Your task to perform on an android device: When is my next appointment? Image 0: 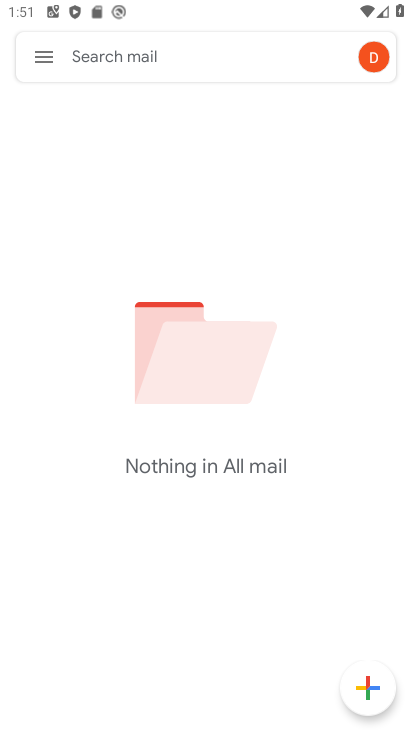
Step 0: press home button
Your task to perform on an android device: When is my next appointment? Image 1: 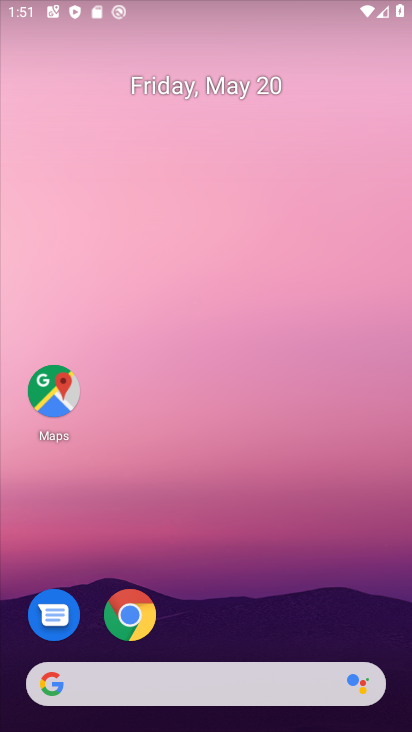
Step 1: drag from (211, 414) to (257, 139)
Your task to perform on an android device: When is my next appointment? Image 2: 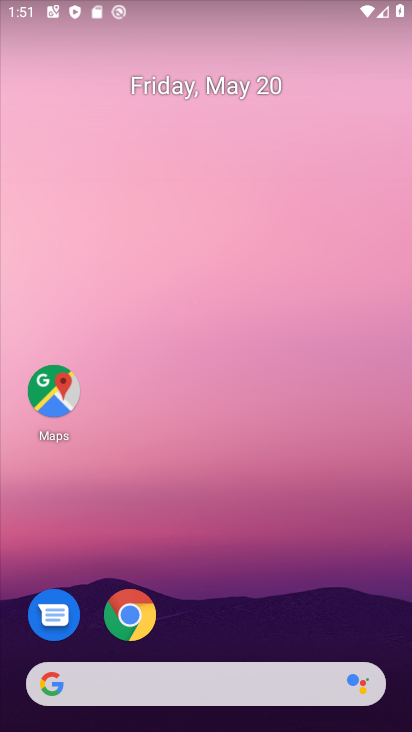
Step 2: drag from (266, 618) to (280, 211)
Your task to perform on an android device: When is my next appointment? Image 3: 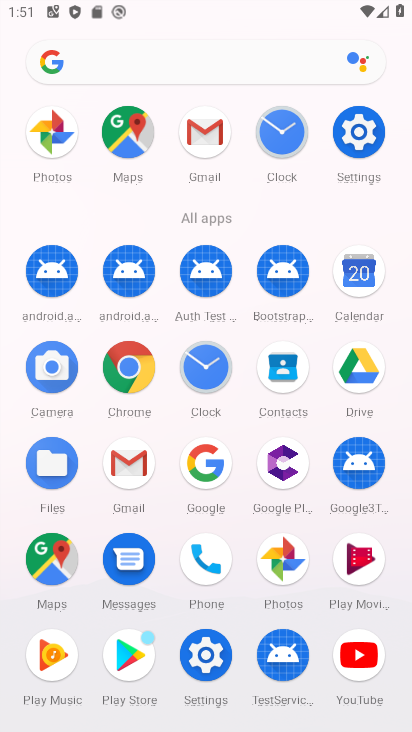
Step 3: click (352, 275)
Your task to perform on an android device: When is my next appointment? Image 4: 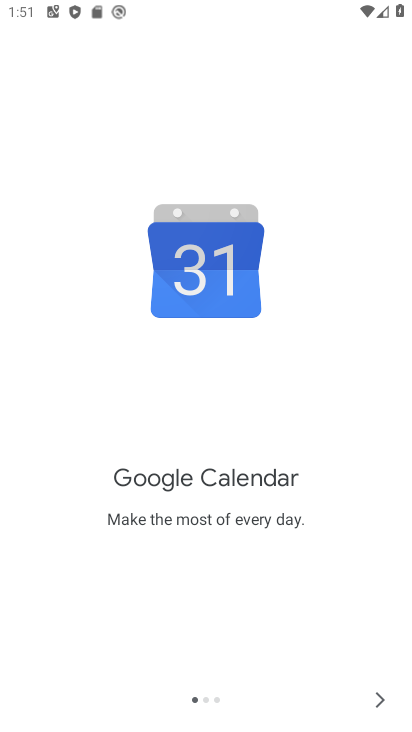
Step 4: click (361, 702)
Your task to perform on an android device: When is my next appointment? Image 5: 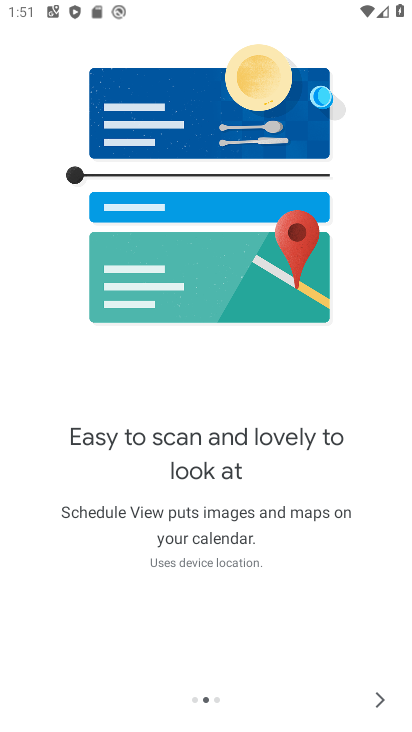
Step 5: click (361, 702)
Your task to perform on an android device: When is my next appointment? Image 6: 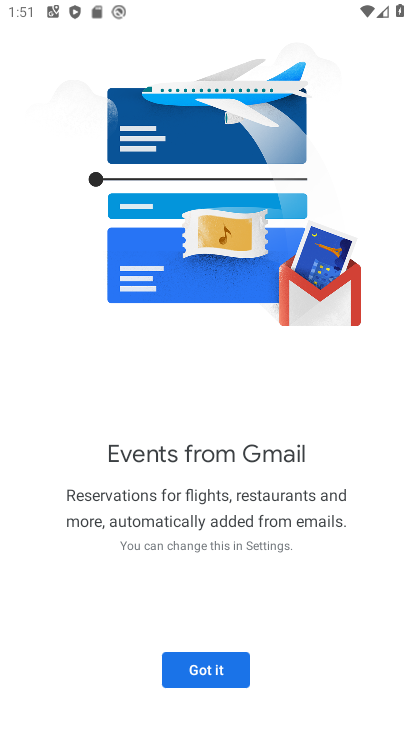
Step 6: click (361, 702)
Your task to perform on an android device: When is my next appointment? Image 7: 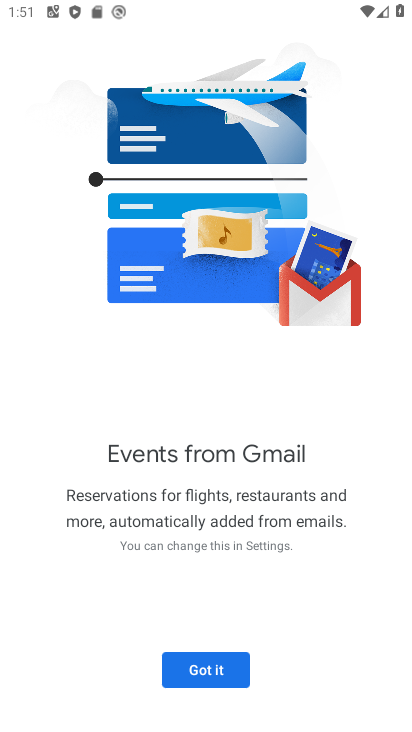
Step 7: click (221, 679)
Your task to perform on an android device: When is my next appointment? Image 8: 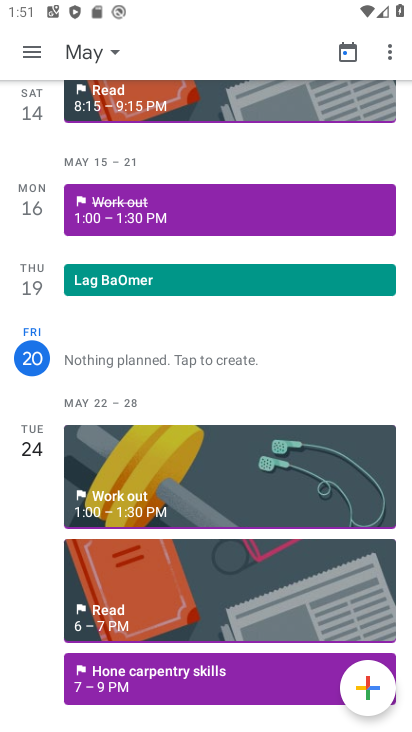
Step 8: task complete